Your task to perform on an android device: Open settings Image 0: 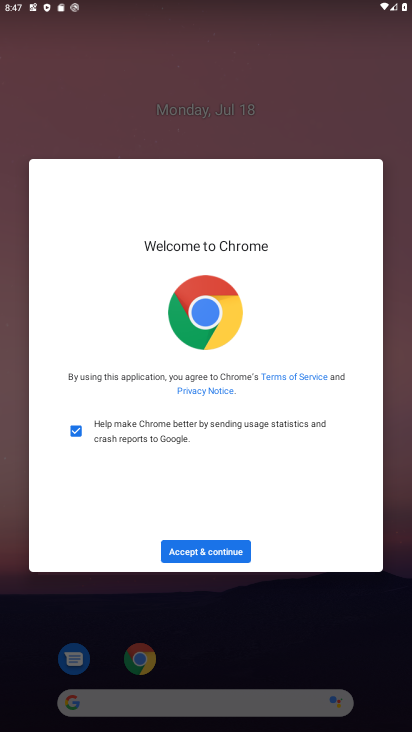
Step 0: press home button
Your task to perform on an android device: Open settings Image 1: 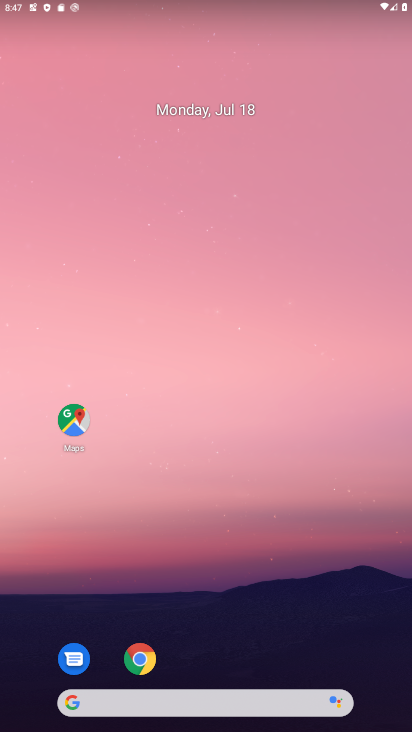
Step 1: drag from (248, 600) to (198, 32)
Your task to perform on an android device: Open settings Image 2: 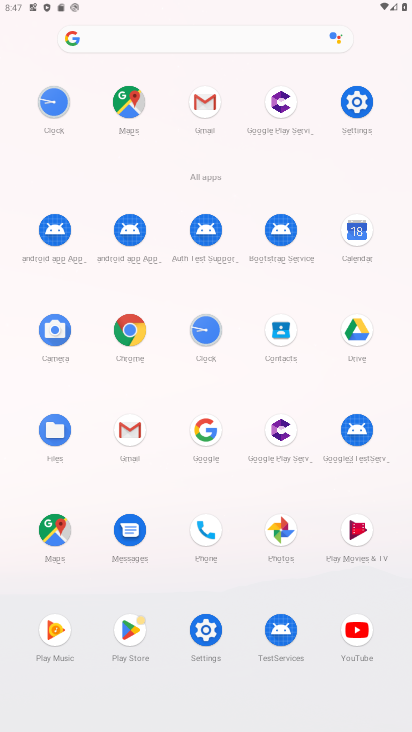
Step 2: click (355, 98)
Your task to perform on an android device: Open settings Image 3: 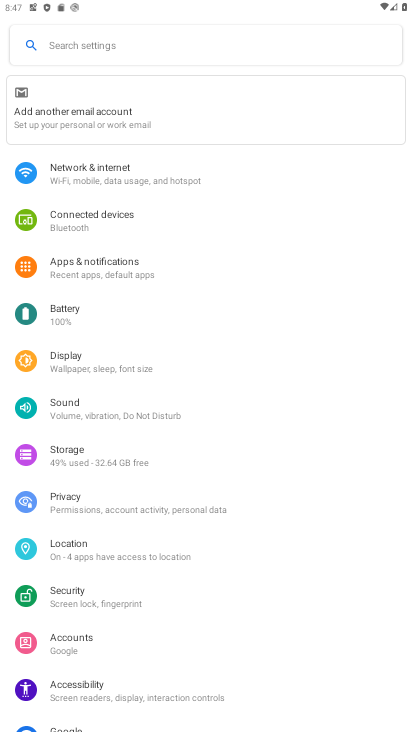
Step 3: task complete